Your task to perform on an android device: What's the weather going to be tomorrow? Image 0: 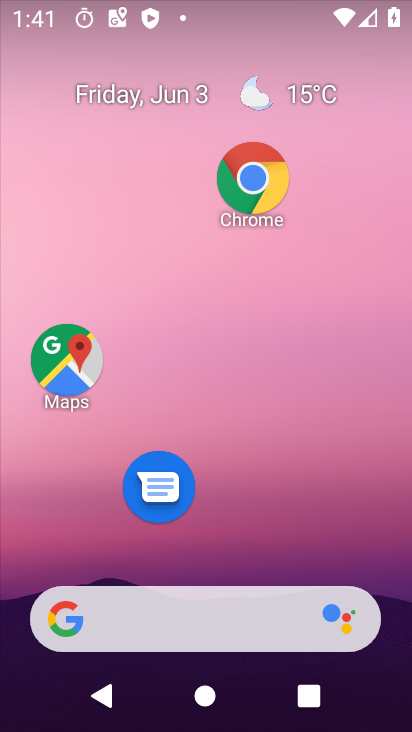
Step 0: press home button
Your task to perform on an android device: What's the weather going to be tomorrow? Image 1: 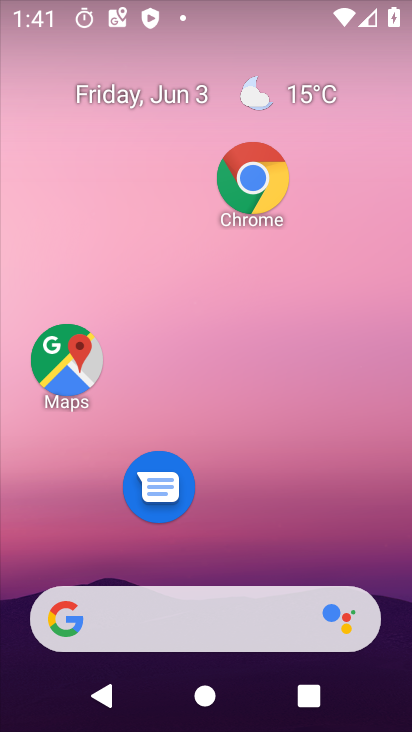
Step 1: click (314, 96)
Your task to perform on an android device: What's the weather going to be tomorrow? Image 2: 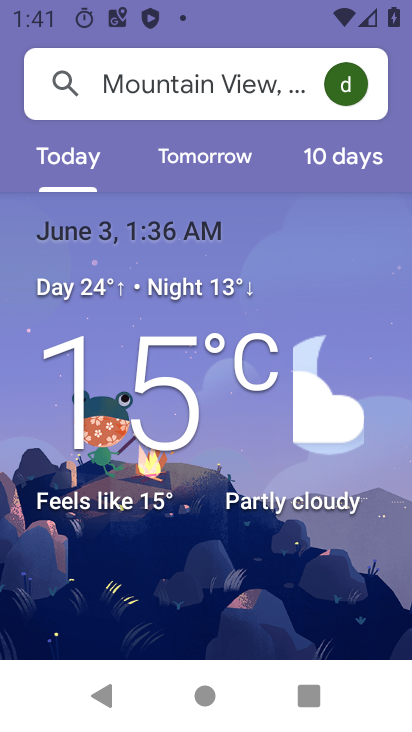
Step 2: click (210, 164)
Your task to perform on an android device: What's the weather going to be tomorrow? Image 3: 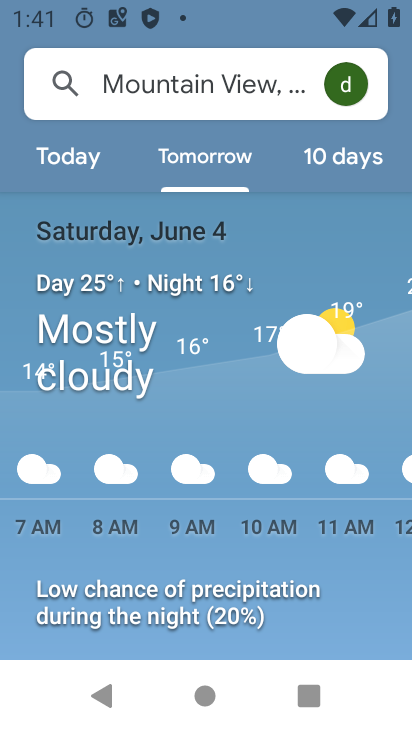
Step 3: drag from (334, 464) to (52, 457)
Your task to perform on an android device: What's the weather going to be tomorrow? Image 4: 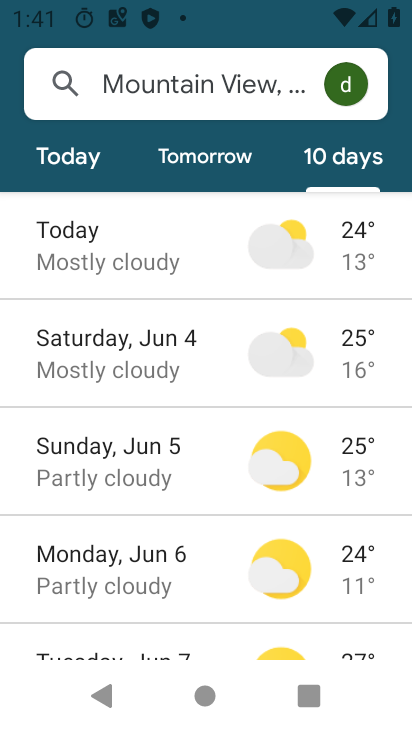
Step 4: click (236, 165)
Your task to perform on an android device: What's the weather going to be tomorrow? Image 5: 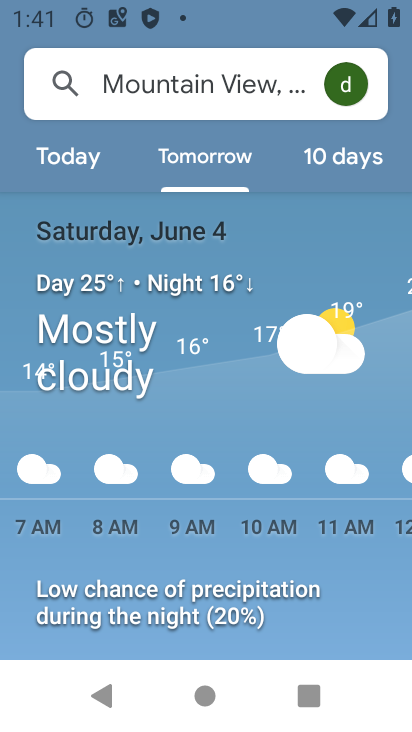
Step 5: task complete